Your task to perform on an android device: What is the speed of a plane? Image 0: 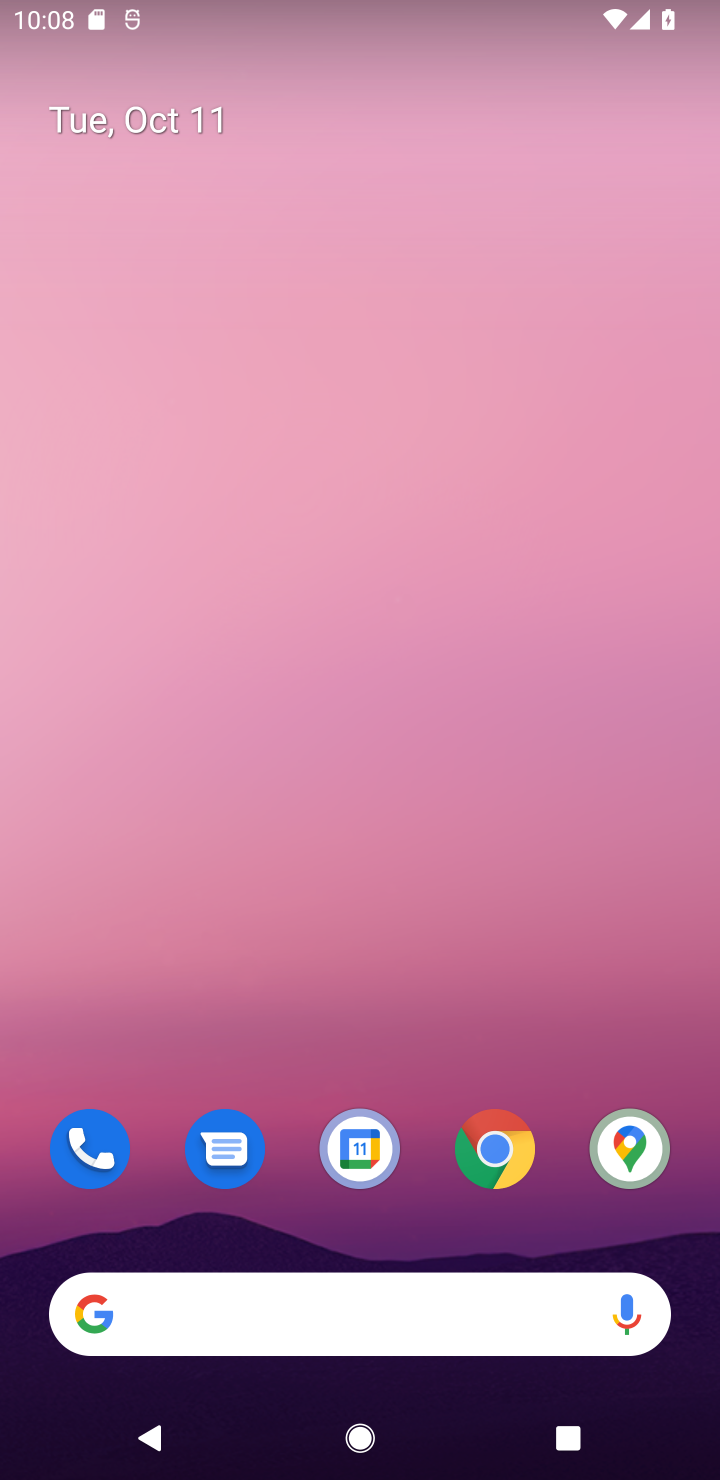
Step 0: click (302, 1284)
Your task to perform on an android device: What is the speed of a plane? Image 1: 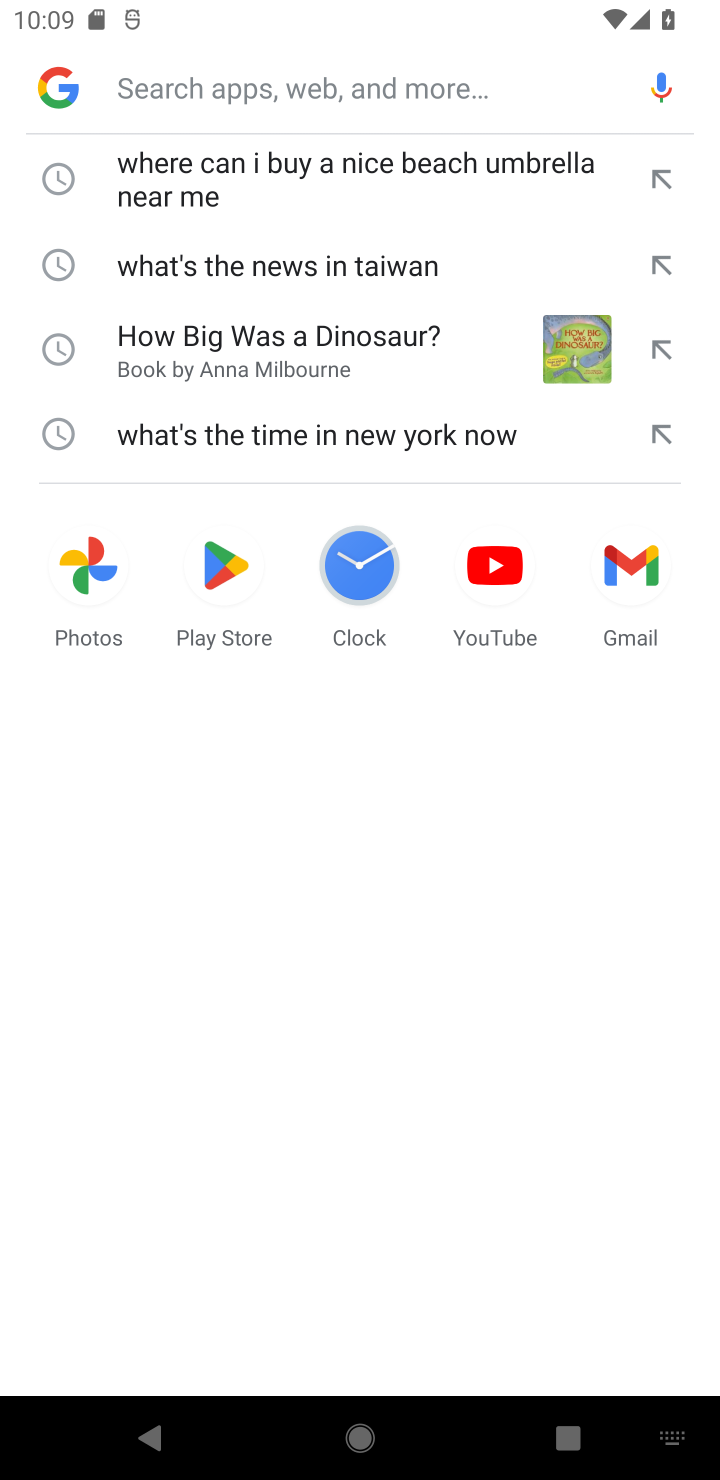
Step 1: type "What is the speed of a plane?"
Your task to perform on an android device: What is the speed of a plane? Image 2: 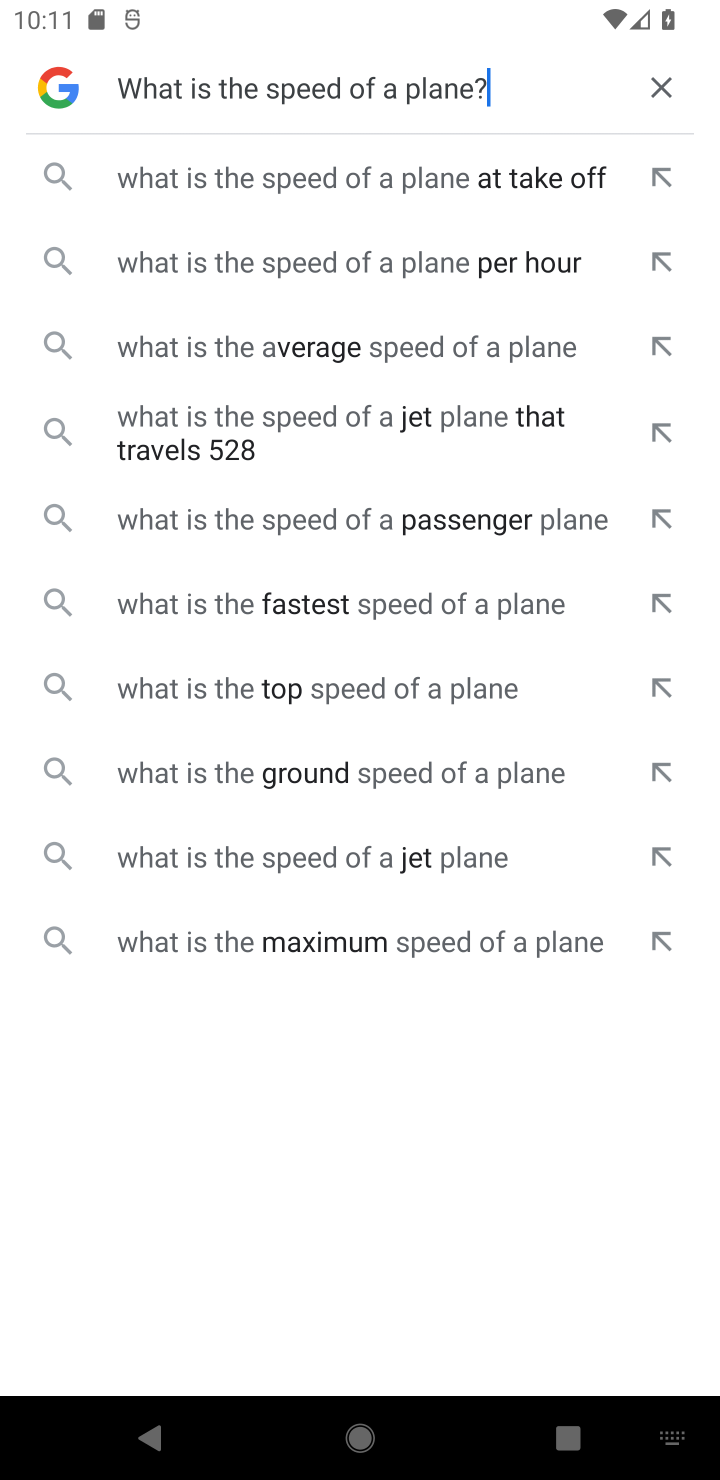
Step 2: click (408, 338)
Your task to perform on an android device: What is the speed of a plane? Image 3: 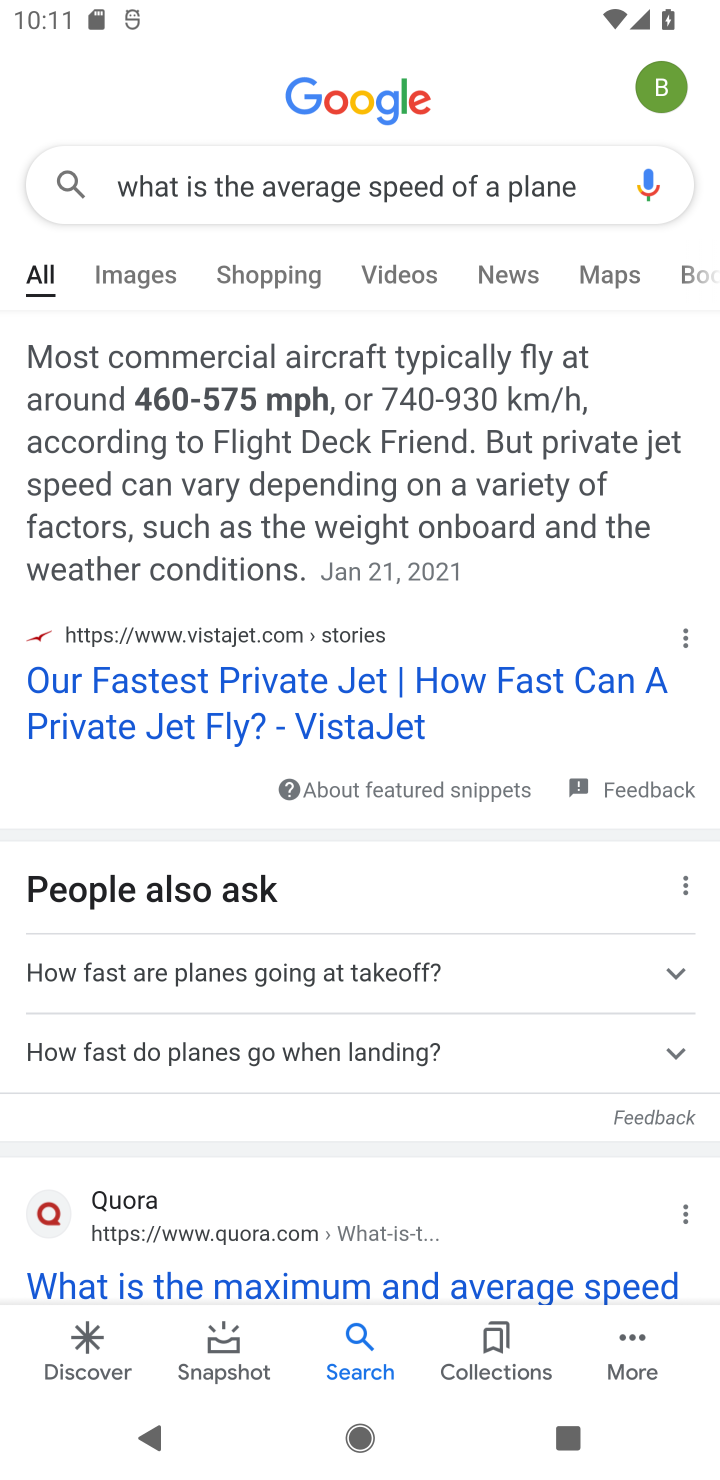
Step 3: task complete